Your task to perform on an android device: Set the phone to "Do not disturb". Image 0: 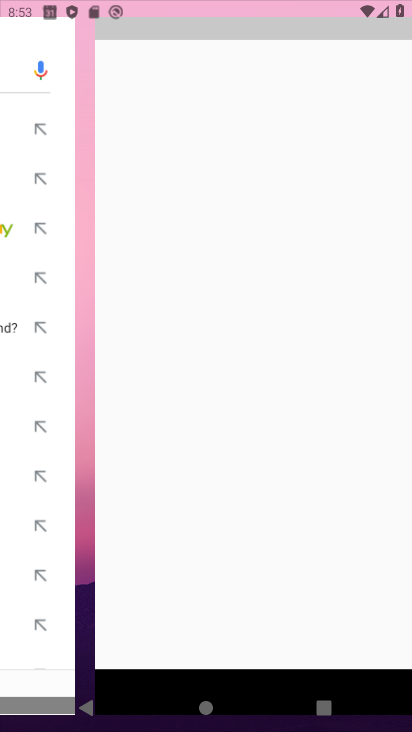
Step 0: press home button
Your task to perform on an android device: Set the phone to "Do not disturb". Image 1: 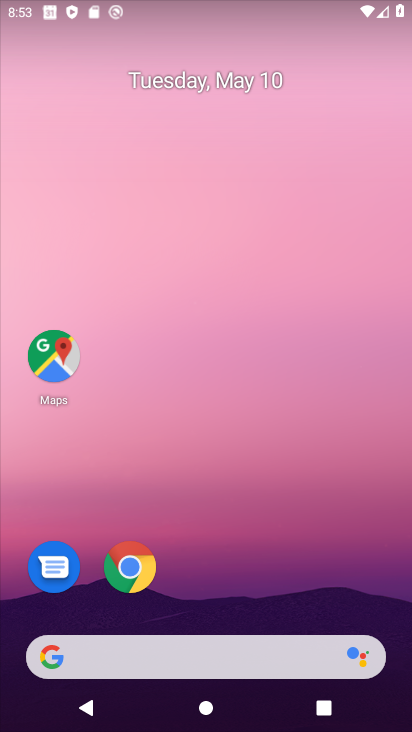
Step 1: drag from (272, 559) to (340, 1)
Your task to perform on an android device: Set the phone to "Do not disturb". Image 2: 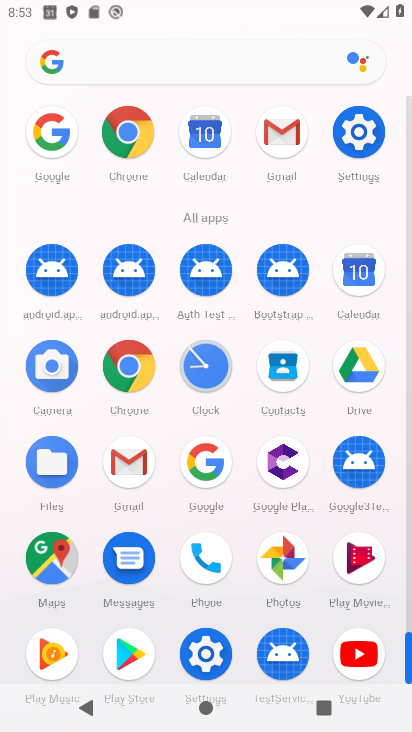
Step 2: click (384, 140)
Your task to perform on an android device: Set the phone to "Do not disturb". Image 3: 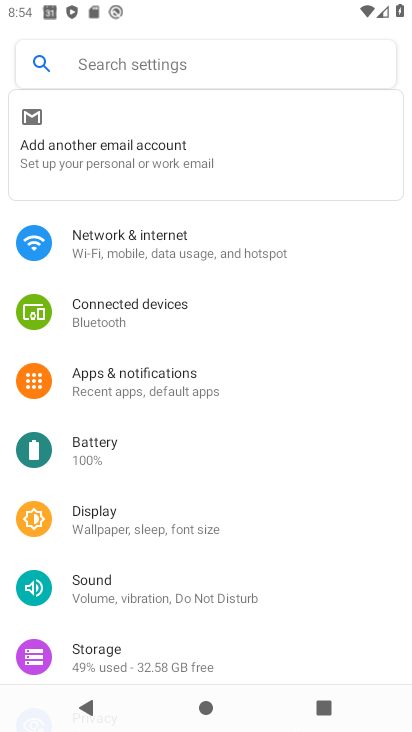
Step 3: drag from (200, 602) to (238, 267)
Your task to perform on an android device: Set the phone to "Do not disturb". Image 4: 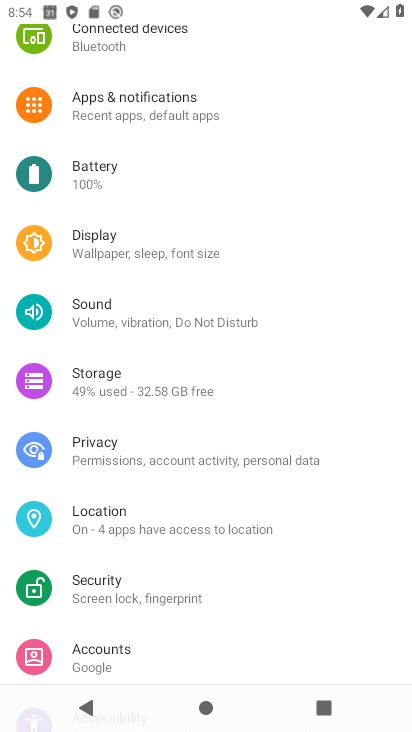
Step 4: click (172, 322)
Your task to perform on an android device: Set the phone to "Do not disturb". Image 5: 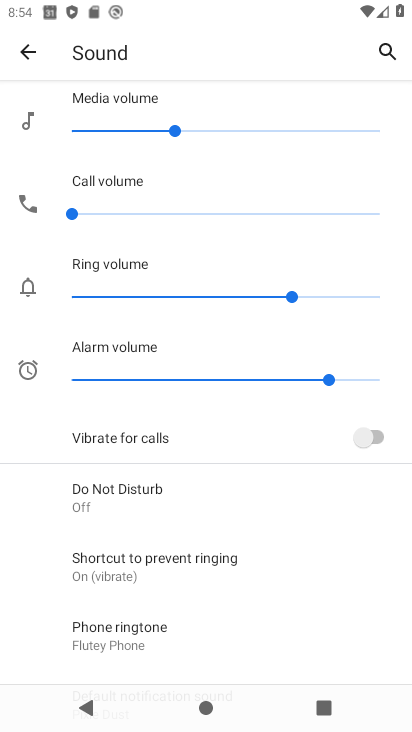
Step 5: task complete